Your task to perform on an android device: open app "Messenger Lite" (install if not already installed) and go to login screen Image 0: 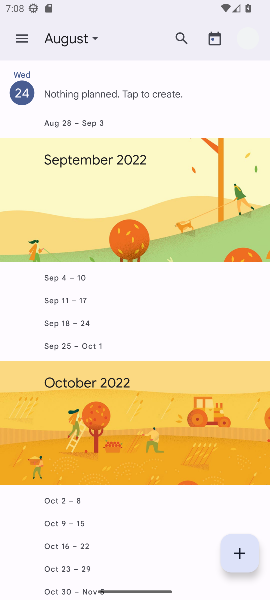
Step 0: press home button
Your task to perform on an android device: open app "Messenger Lite" (install if not already installed) and go to login screen Image 1: 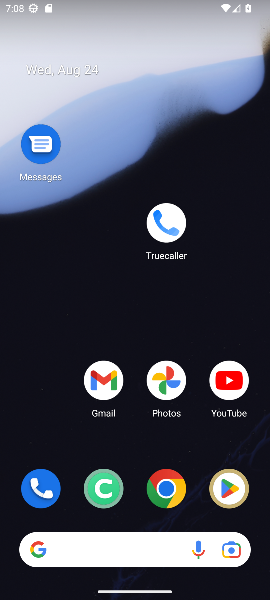
Step 1: drag from (138, 526) to (111, 46)
Your task to perform on an android device: open app "Messenger Lite" (install if not already installed) and go to login screen Image 2: 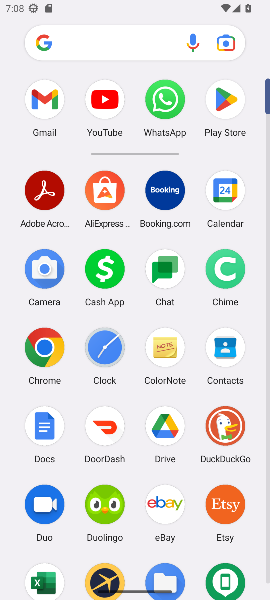
Step 2: click (209, 97)
Your task to perform on an android device: open app "Messenger Lite" (install if not already installed) and go to login screen Image 3: 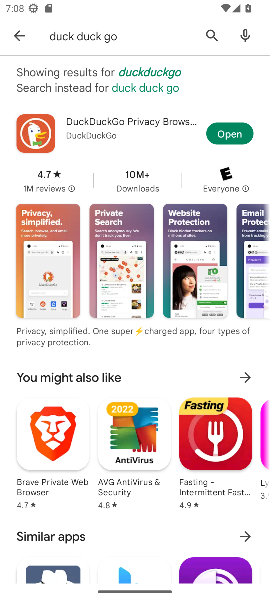
Step 3: click (205, 33)
Your task to perform on an android device: open app "Messenger Lite" (install if not already installed) and go to login screen Image 4: 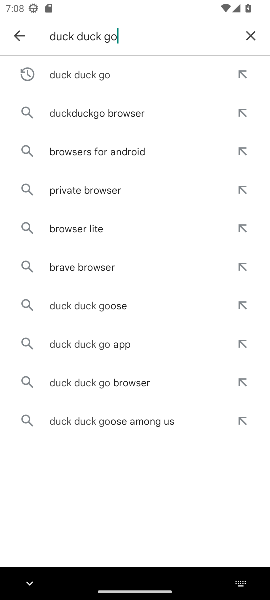
Step 4: click (249, 43)
Your task to perform on an android device: open app "Messenger Lite" (install if not already installed) and go to login screen Image 5: 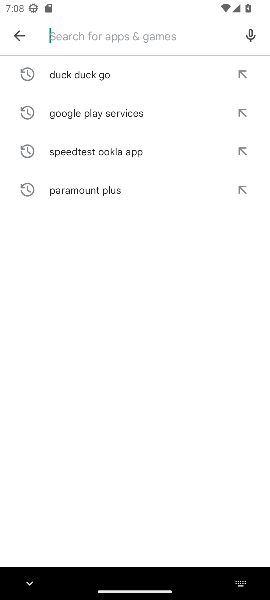
Step 5: type "messanger"
Your task to perform on an android device: open app "Messenger Lite" (install if not already installed) and go to login screen Image 6: 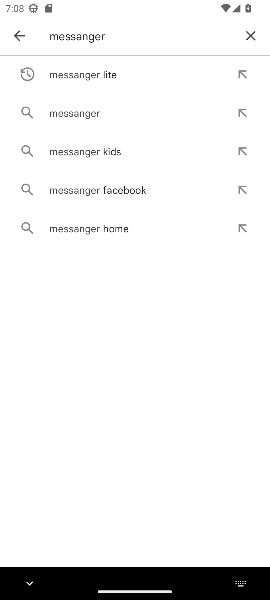
Step 6: click (105, 74)
Your task to perform on an android device: open app "Messenger Lite" (install if not already installed) and go to login screen Image 7: 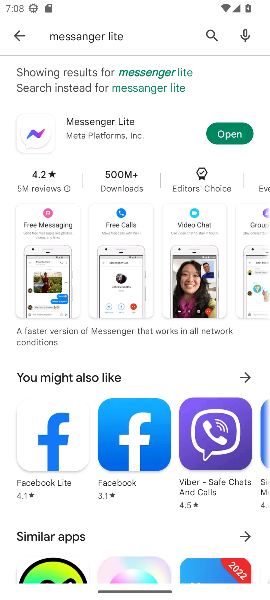
Step 7: click (231, 136)
Your task to perform on an android device: open app "Messenger Lite" (install if not already installed) and go to login screen Image 8: 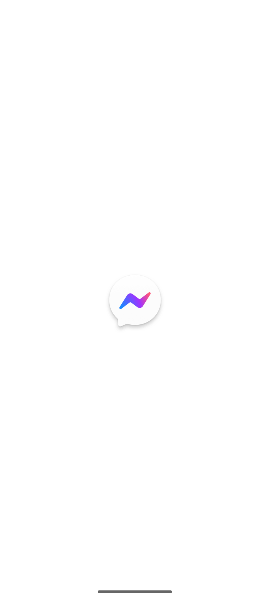
Step 8: task complete